Your task to perform on an android device: Do I have any events this weekend? Image 0: 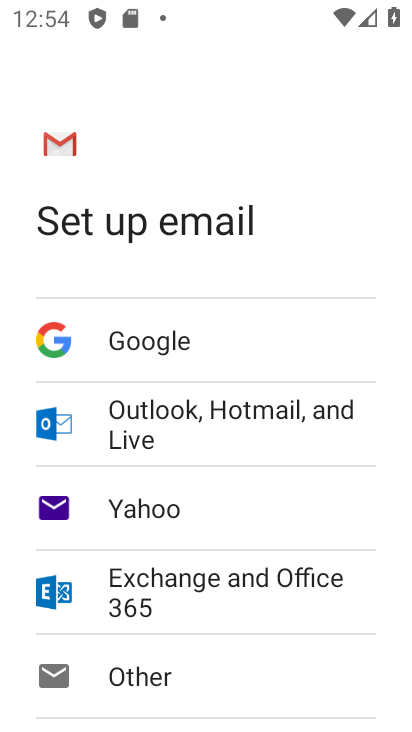
Step 0: press home button
Your task to perform on an android device: Do I have any events this weekend? Image 1: 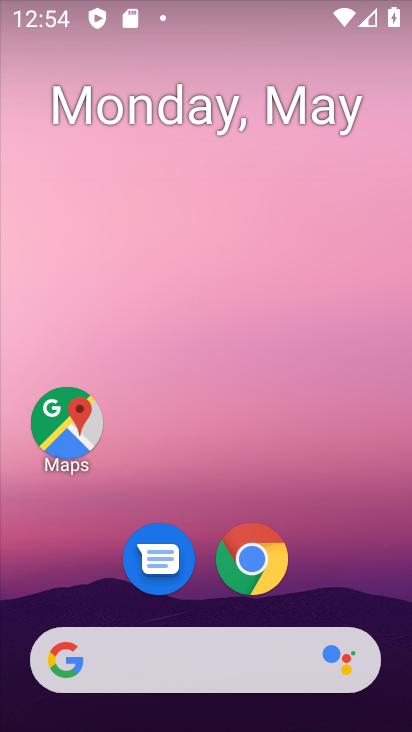
Step 1: drag from (236, 712) to (334, 59)
Your task to perform on an android device: Do I have any events this weekend? Image 2: 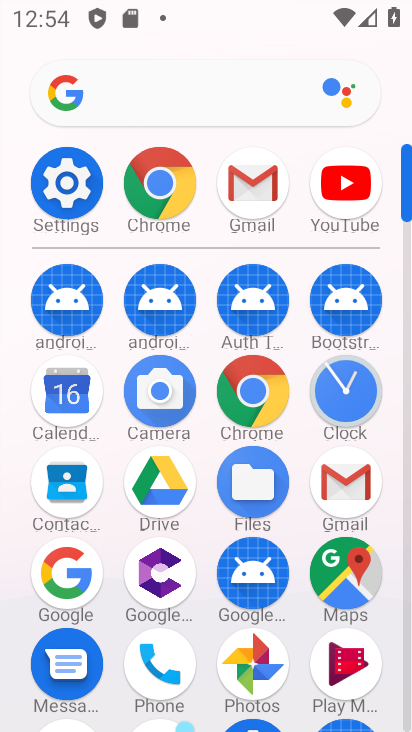
Step 2: click (73, 400)
Your task to perform on an android device: Do I have any events this weekend? Image 3: 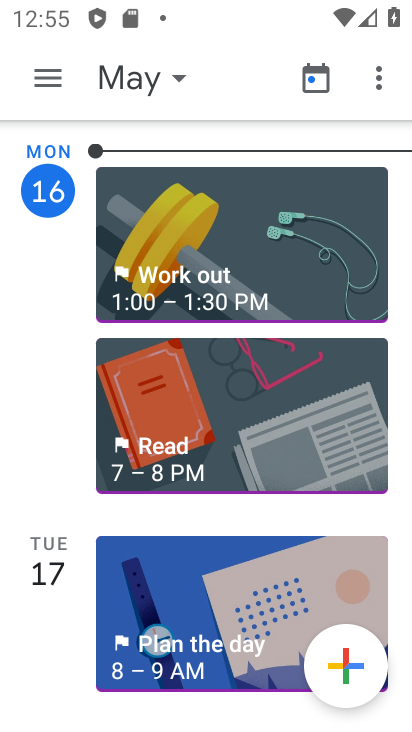
Step 3: task complete